Your task to perform on an android device: turn smart compose on in the gmail app Image 0: 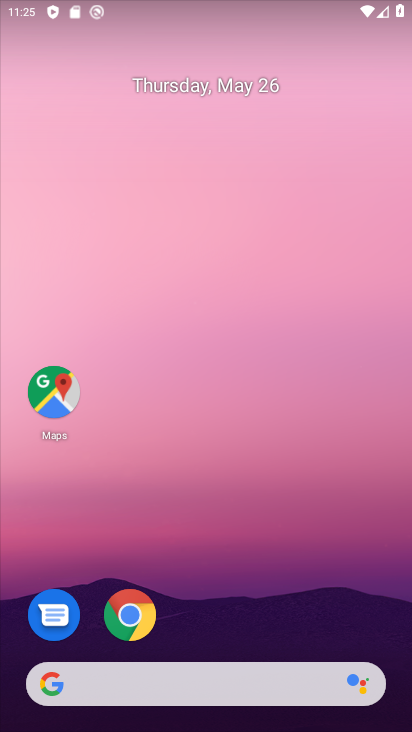
Step 0: drag from (252, 641) to (195, 131)
Your task to perform on an android device: turn smart compose on in the gmail app Image 1: 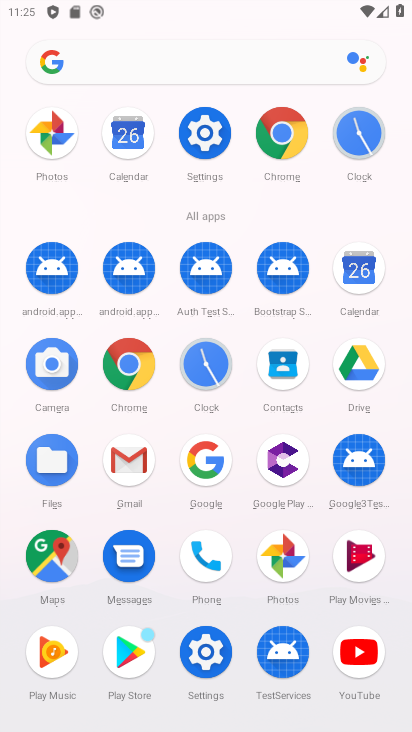
Step 1: click (126, 464)
Your task to perform on an android device: turn smart compose on in the gmail app Image 2: 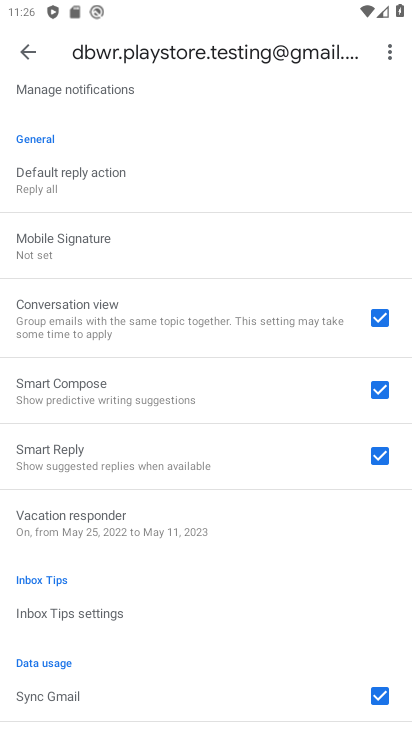
Step 2: task complete